Your task to perform on an android device: open app "Facebook Messenger" (install if not already installed) and go to login screen Image 0: 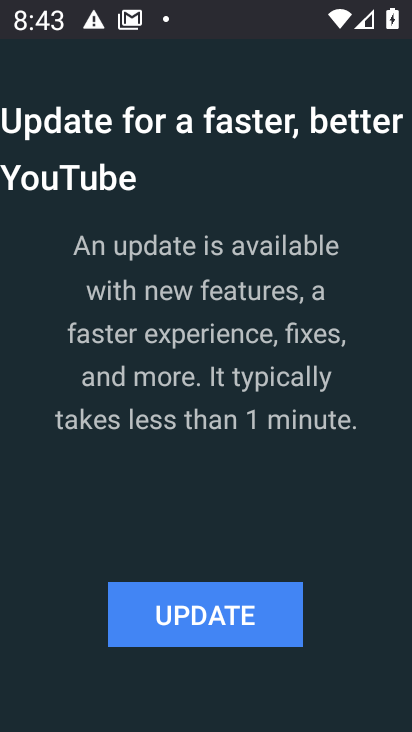
Step 0: press home button
Your task to perform on an android device: open app "Facebook Messenger" (install if not already installed) and go to login screen Image 1: 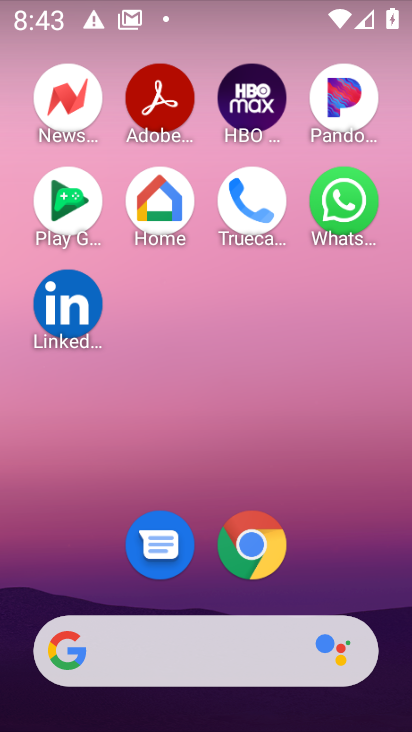
Step 1: drag from (348, 542) to (362, 68)
Your task to perform on an android device: open app "Facebook Messenger" (install if not already installed) and go to login screen Image 2: 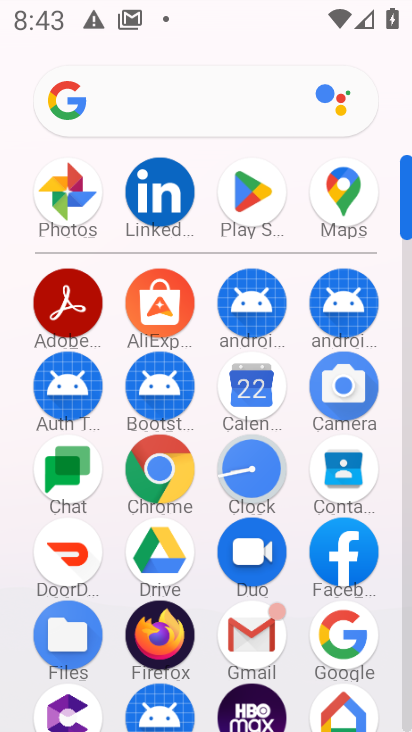
Step 2: click (252, 197)
Your task to perform on an android device: open app "Facebook Messenger" (install if not already installed) and go to login screen Image 3: 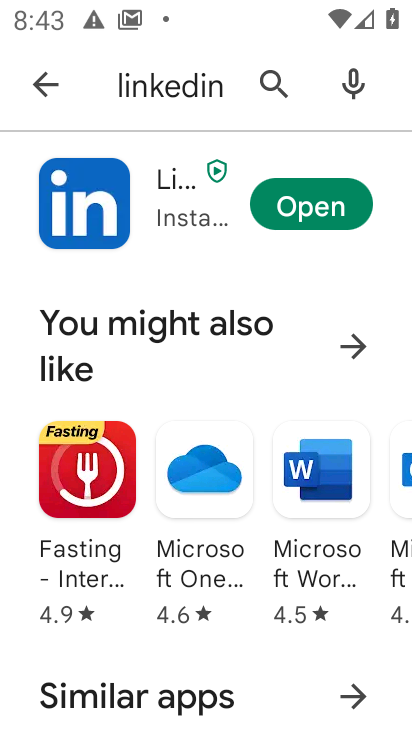
Step 3: press back button
Your task to perform on an android device: open app "Facebook Messenger" (install if not already installed) and go to login screen Image 4: 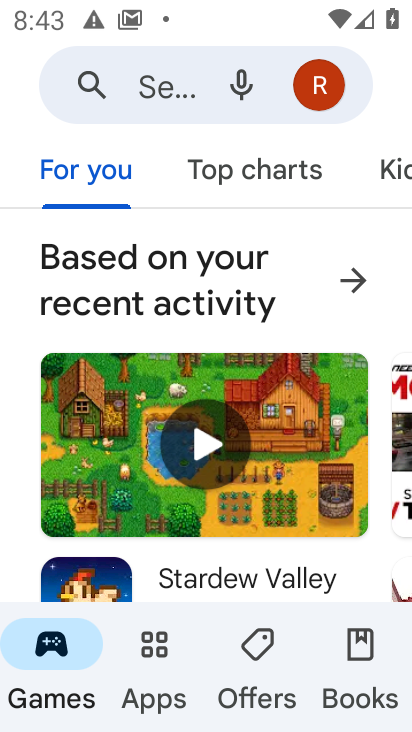
Step 4: click (158, 75)
Your task to perform on an android device: open app "Facebook Messenger" (install if not already installed) and go to login screen Image 5: 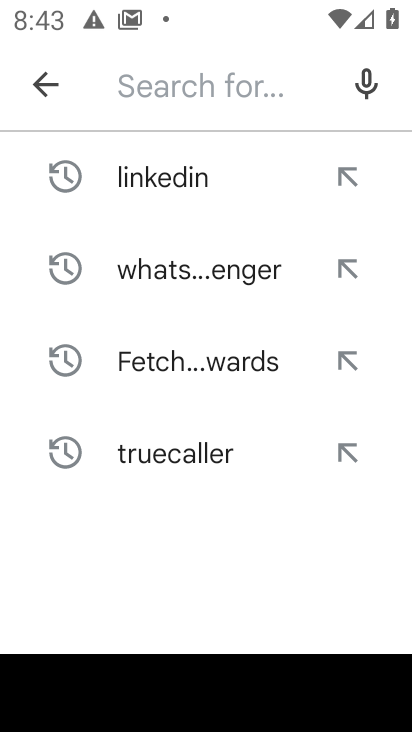
Step 5: type "Facebook Messenger"
Your task to perform on an android device: open app "Facebook Messenger" (install if not already installed) and go to login screen Image 6: 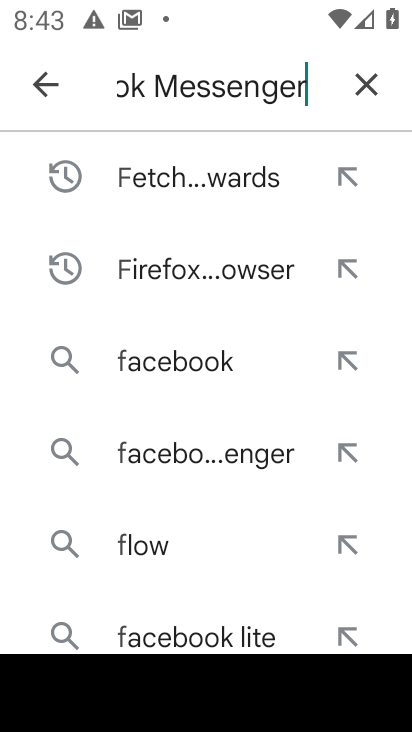
Step 6: press enter
Your task to perform on an android device: open app "Facebook Messenger" (install if not already installed) and go to login screen Image 7: 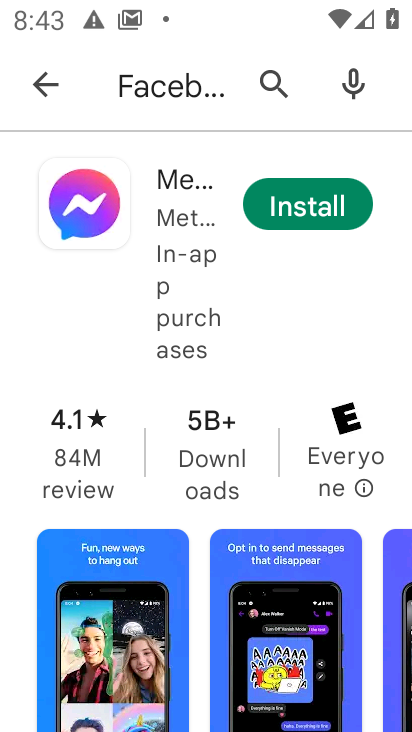
Step 7: click (299, 205)
Your task to perform on an android device: open app "Facebook Messenger" (install if not already installed) and go to login screen Image 8: 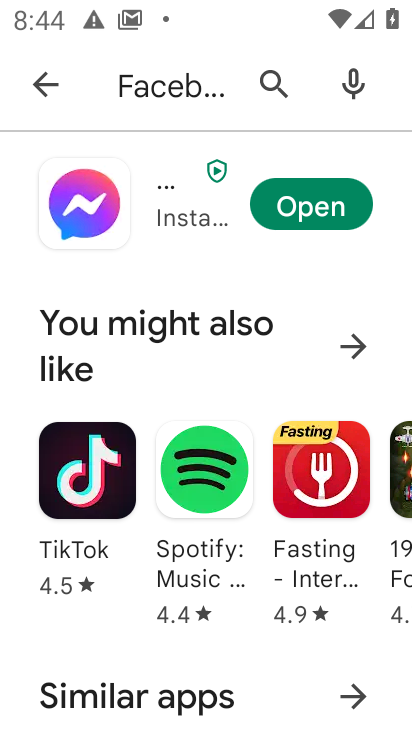
Step 8: click (305, 206)
Your task to perform on an android device: open app "Facebook Messenger" (install if not already installed) and go to login screen Image 9: 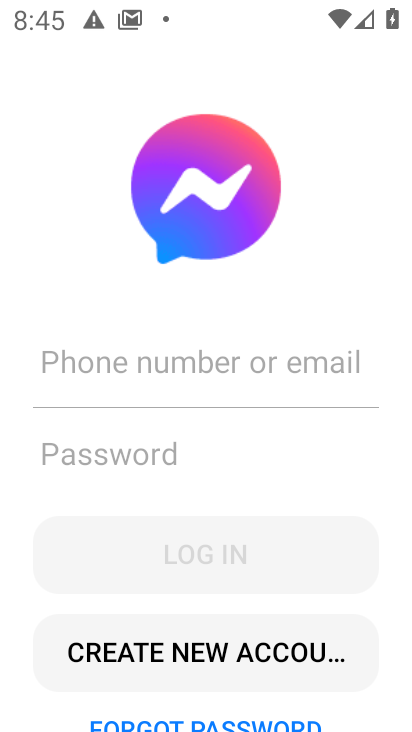
Step 9: task complete